Your task to perform on an android device: toggle javascript in the chrome app Image 0: 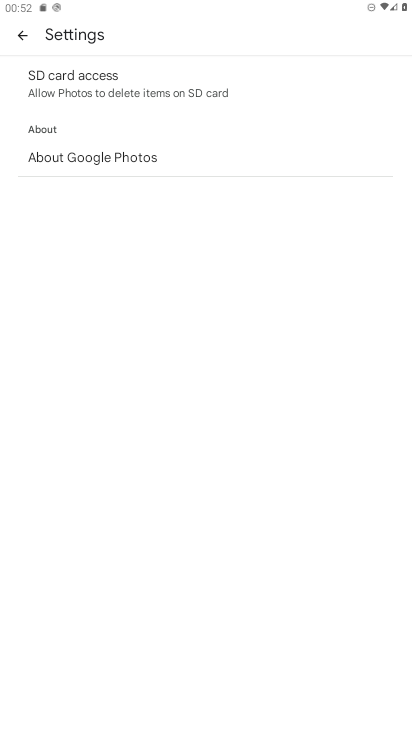
Step 0: press home button
Your task to perform on an android device: toggle javascript in the chrome app Image 1: 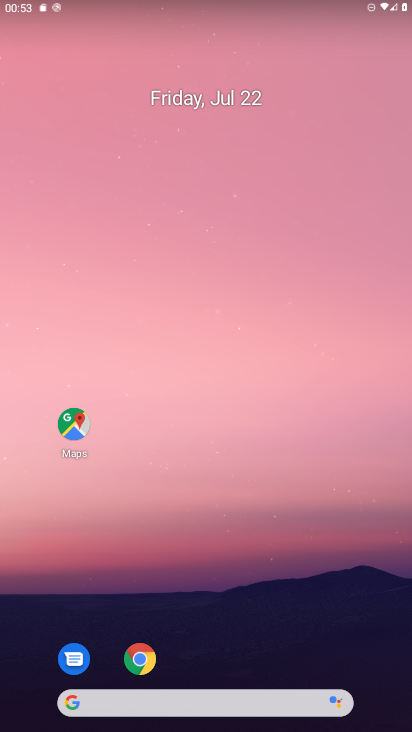
Step 1: click (141, 660)
Your task to perform on an android device: toggle javascript in the chrome app Image 2: 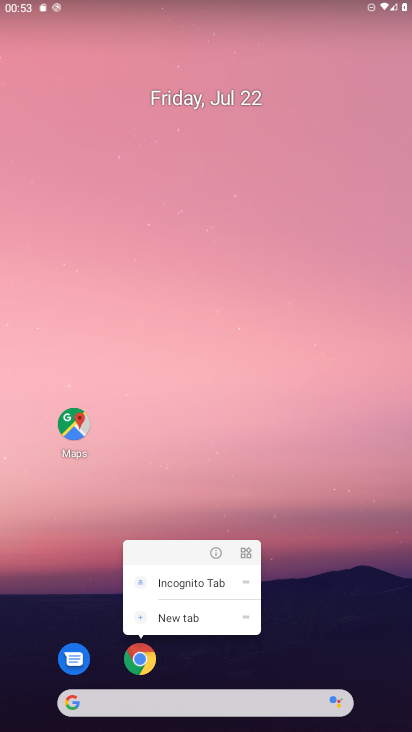
Step 2: click (141, 660)
Your task to perform on an android device: toggle javascript in the chrome app Image 3: 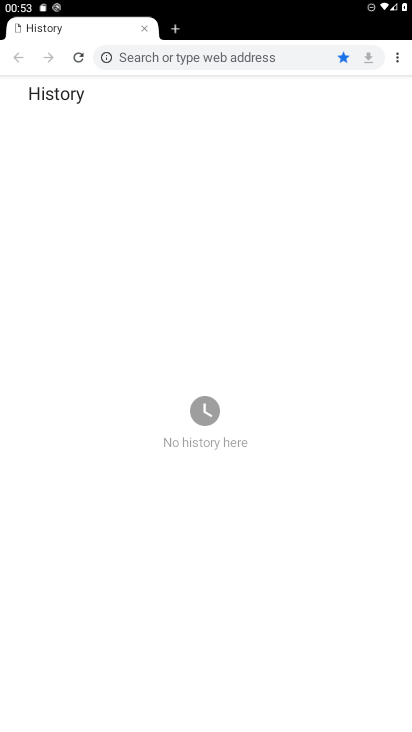
Step 3: click (397, 54)
Your task to perform on an android device: toggle javascript in the chrome app Image 4: 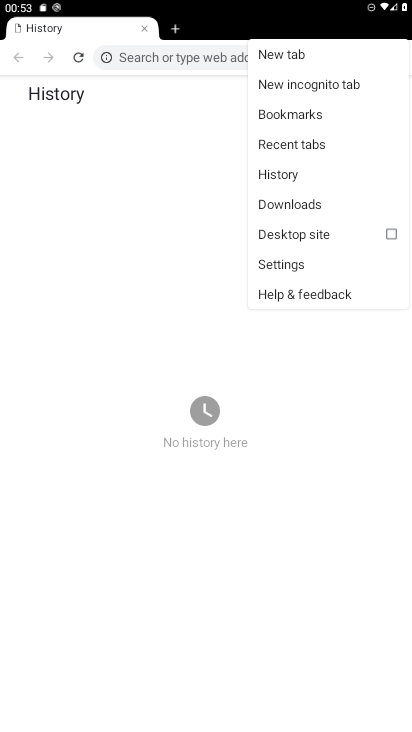
Step 4: click (285, 265)
Your task to perform on an android device: toggle javascript in the chrome app Image 5: 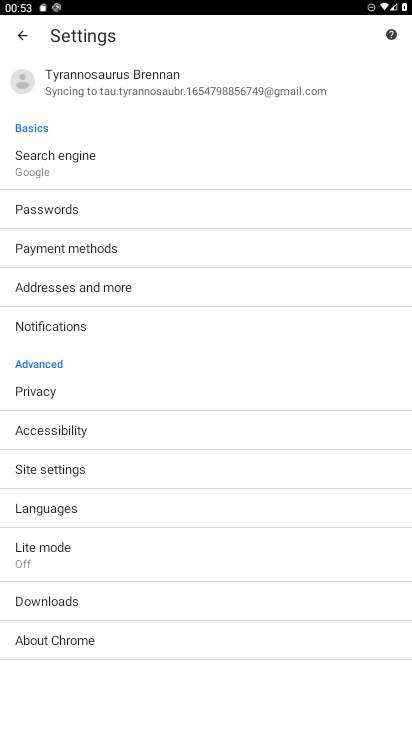
Step 5: click (57, 472)
Your task to perform on an android device: toggle javascript in the chrome app Image 6: 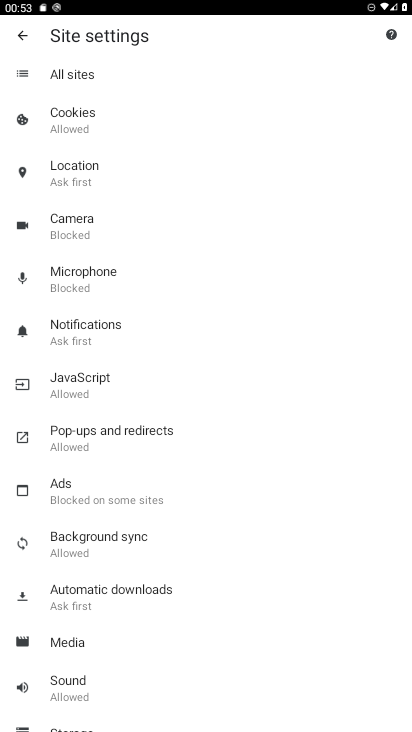
Step 6: click (78, 386)
Your task to perform on an android device: toggle javascript in the chrome app Image 7: 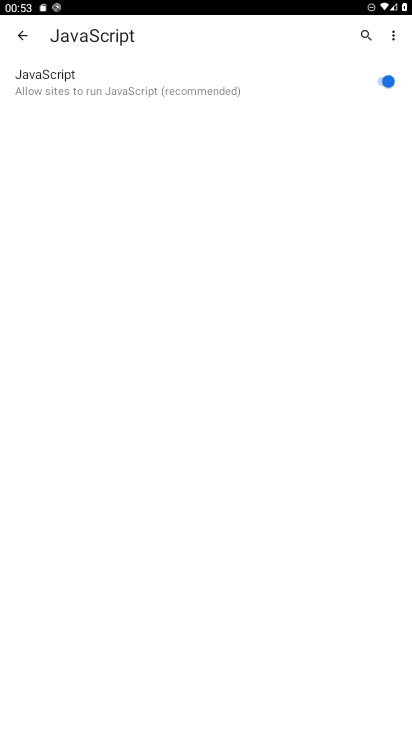
Step 7: click (376, 85)
Your task to perform on an android device: toggle javascript in the chrome app Image 8: 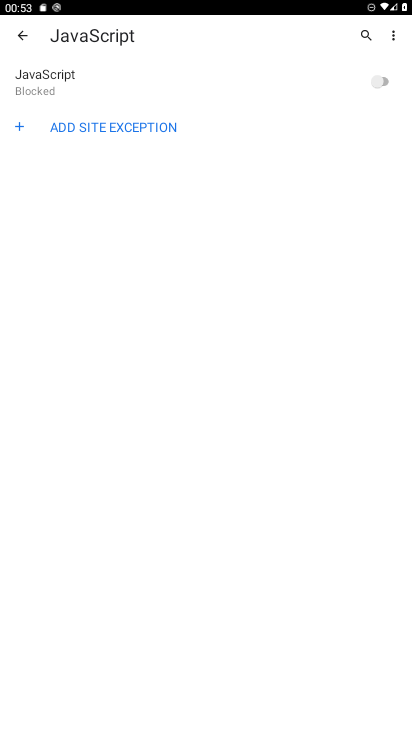
Step 8: task complete